Your task to perform on an android device: Open Chrome and go to settings Image 0: 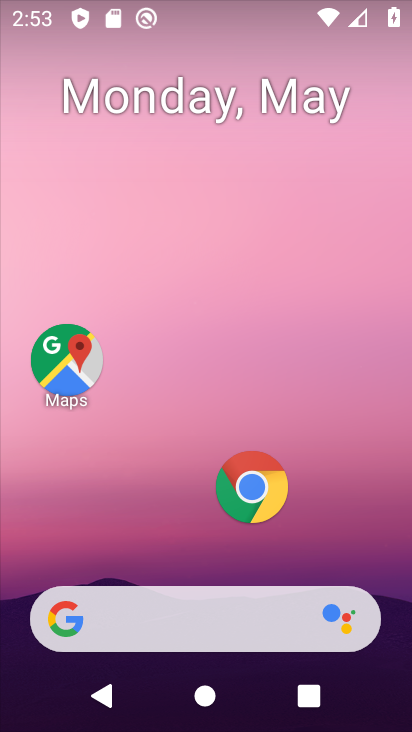
Step 0: drag from (185, 562) to (205, 88)
Your task to perform on an android device: Open Chrome and go to settings Image 1: 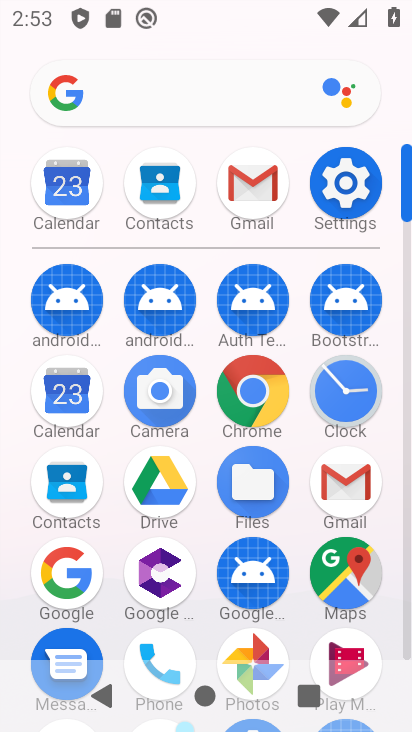
Step 1: click (244, 393)
Your task to perform on an android device: Open Chrome and go to settings Image 2: 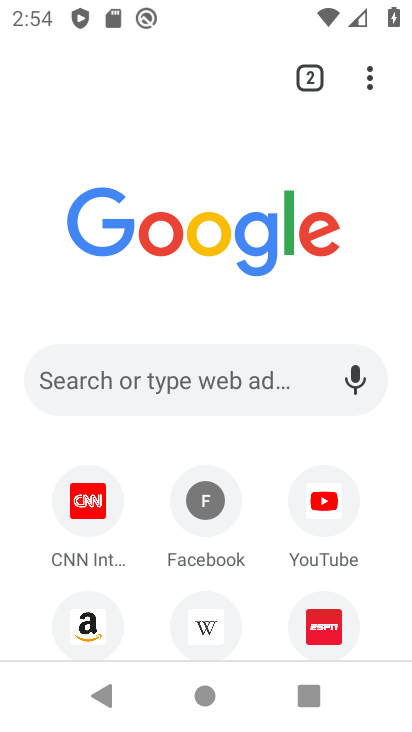
Step 2: click (371, 77)
Your task to perform on an android device: Open Chrome and go to settings Image 3: 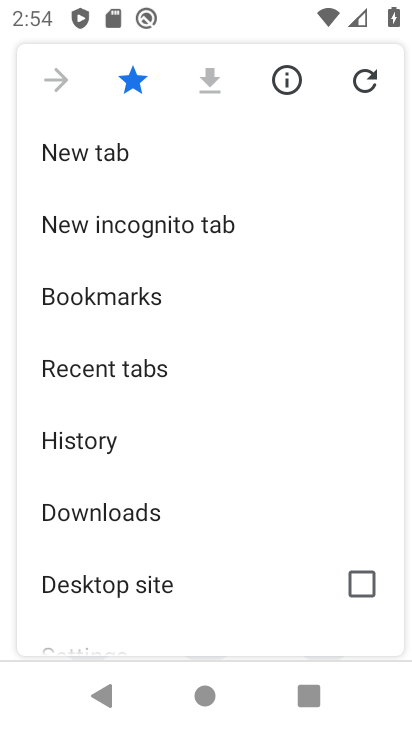
Step 3: drag from (140, 601) to (147, 299)
Your task to perform on an android device: Open Chrome and go to settings Image 4: 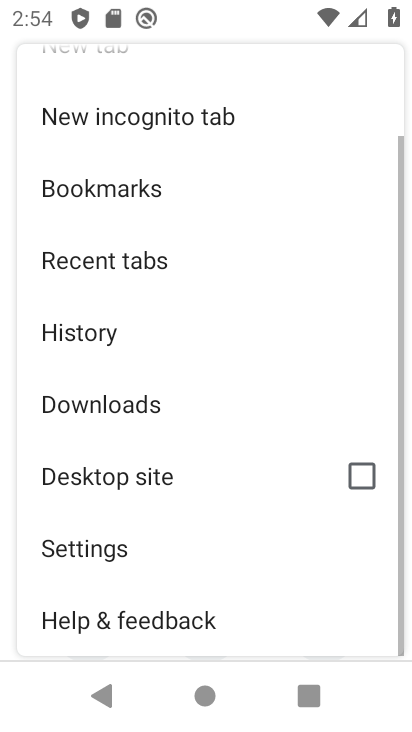
Step 4: click (96, 543)
Your task to perform on an android device: Open Chrome and go to settings Image 5: 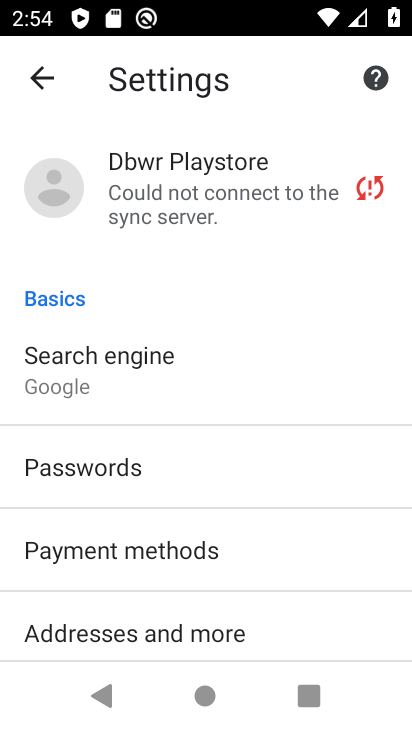
Step 5: task complete